Your task to perform on an android device: What is the recent news? Image 0: 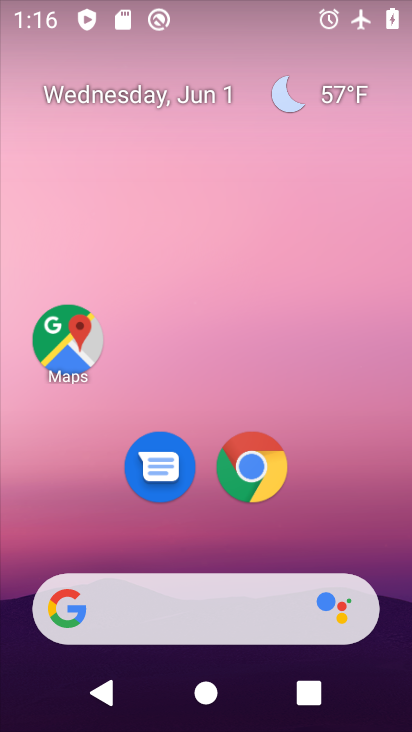
Step 0: drag from (6, 248) to (357, 708)
Your task to perform on an android device: What is the recent news? Image 1: 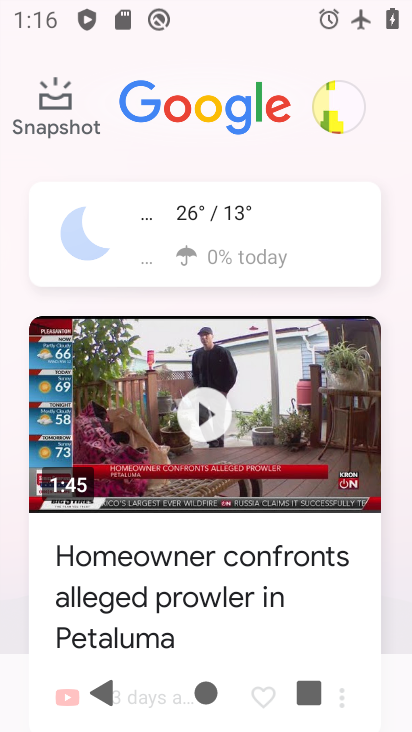
Step 1: task complete